Your task to perform on an android device: Open location settings Image 0: 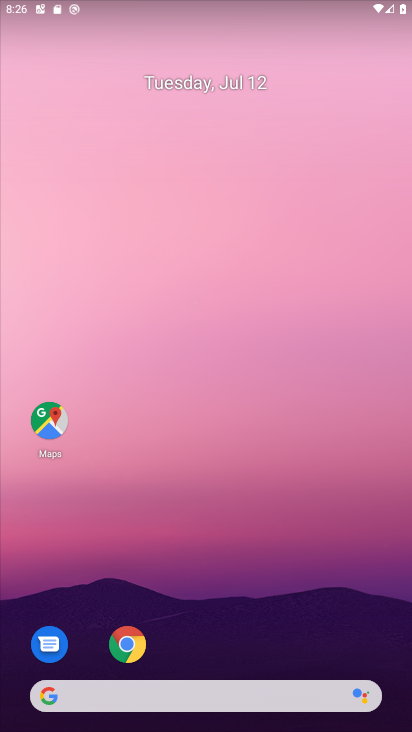
Step 0: drag from (304, 586) to (301, 60)
Your task to perform on an android device: Open location settings Image 1: 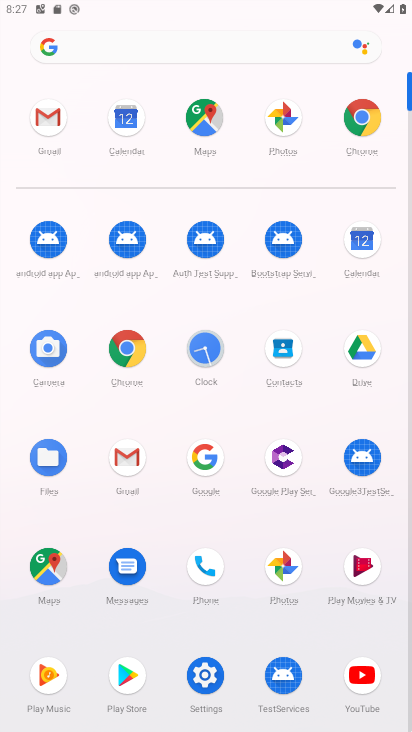
Step 1: click (213, 685)
Your task to perform on an android device: Open location settings Image 2: 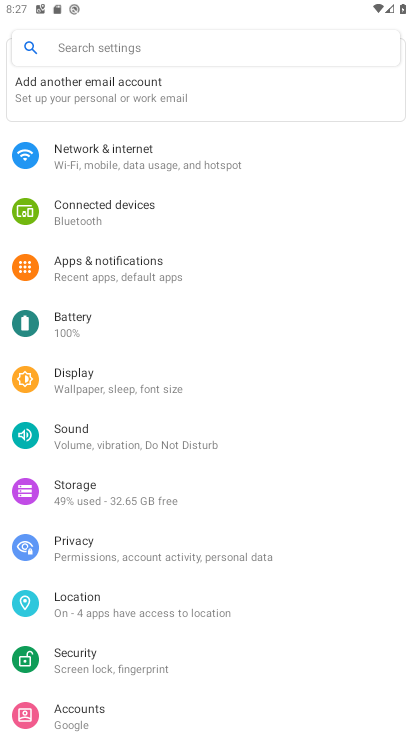
Step 2: click (119, 608)
Your task to perform on an android device: Open location settings Image 3: 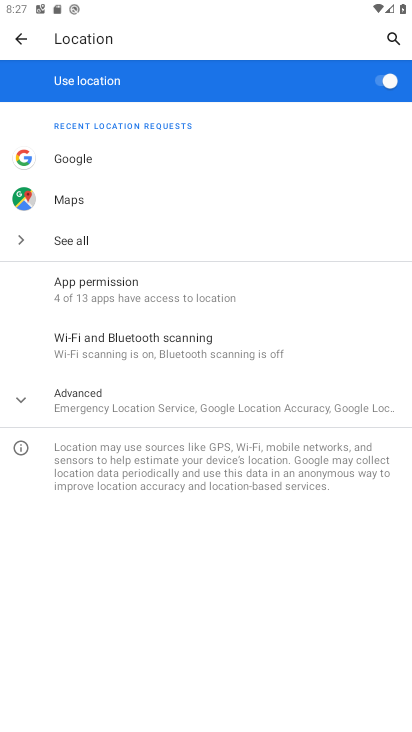
Step 3: task complete